Your task to perform on an android device: Open wifi settings Image 0: 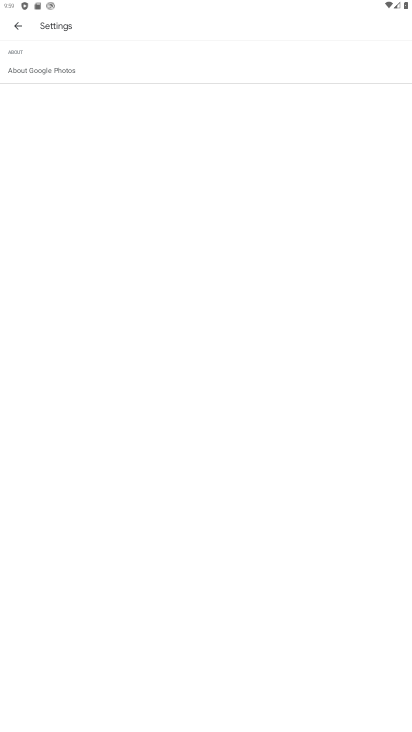
Step 0: press home button
Your task to perform on an android device: Open wifi settings Image 1: 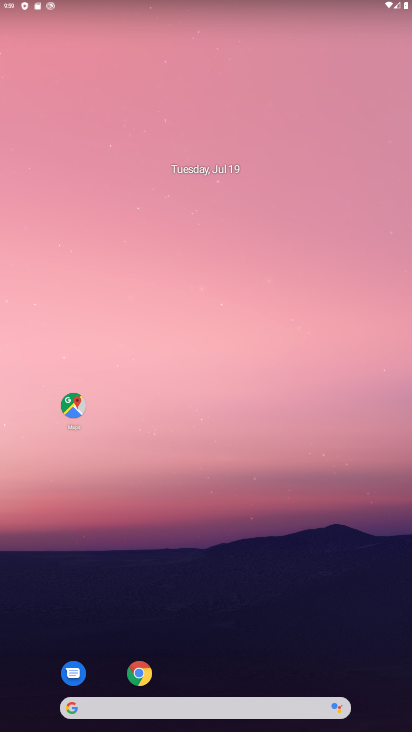
Step 1: drag from (326, 603) to (329, 69)
Your task to perform on an android device: Open wifi settings Image 2: 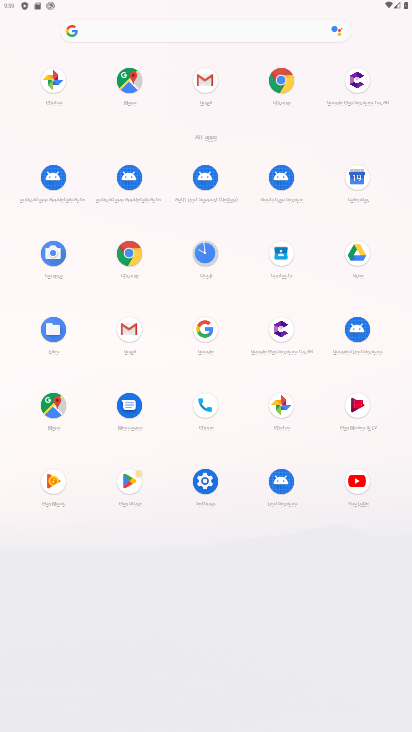
Step 2: click (209, 485)
Your task to perform on an android device: Open wifi settings Image 3: 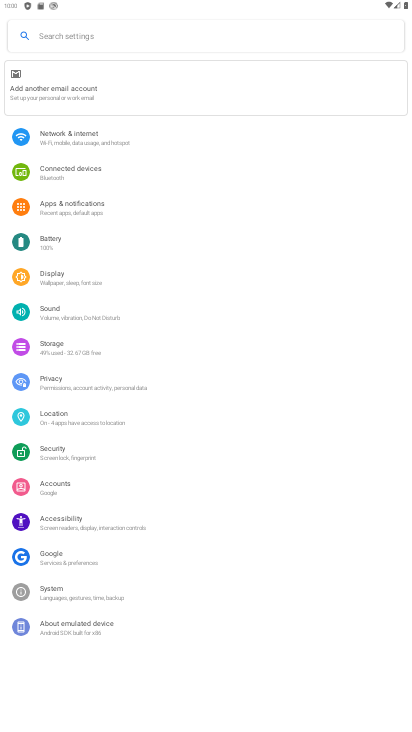
Step 3: click (113, 137)
Your task to perform on an android device: Open wifi settings Image 4: 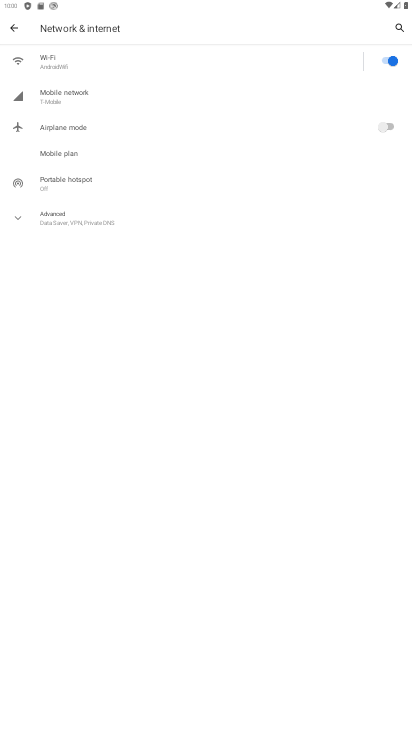
Step 4: click (87, 61)
Your task to perform on an android device: Open wifi settings Image 5: 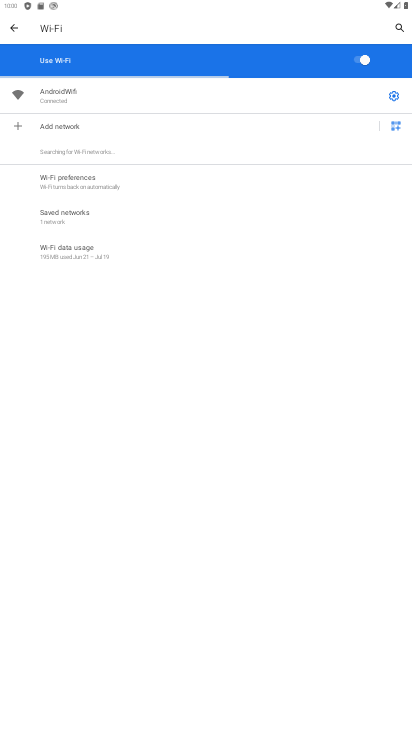
Step 5: task complete